Your task to perform on an android device: Empty the shopping cart on amazon. Add "sony triple a" to the cart on amazon, then select checkout. Image 0: 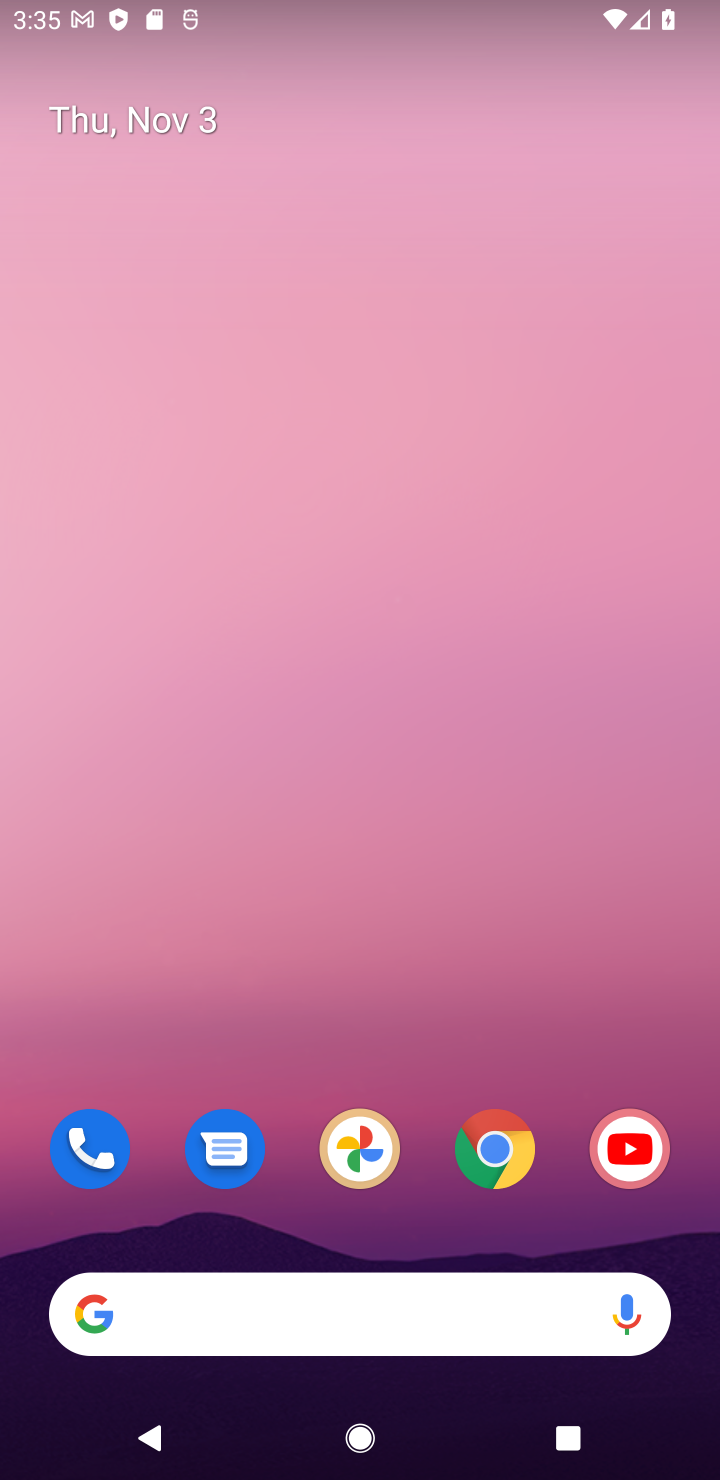
Step 0: drag from (299, 1039) to (9, 192)
Your task to perform on an android device: Empty the shopping cart on amazon. Add "sony triple a" to the cart on amazon, then select checkout. Image 1: 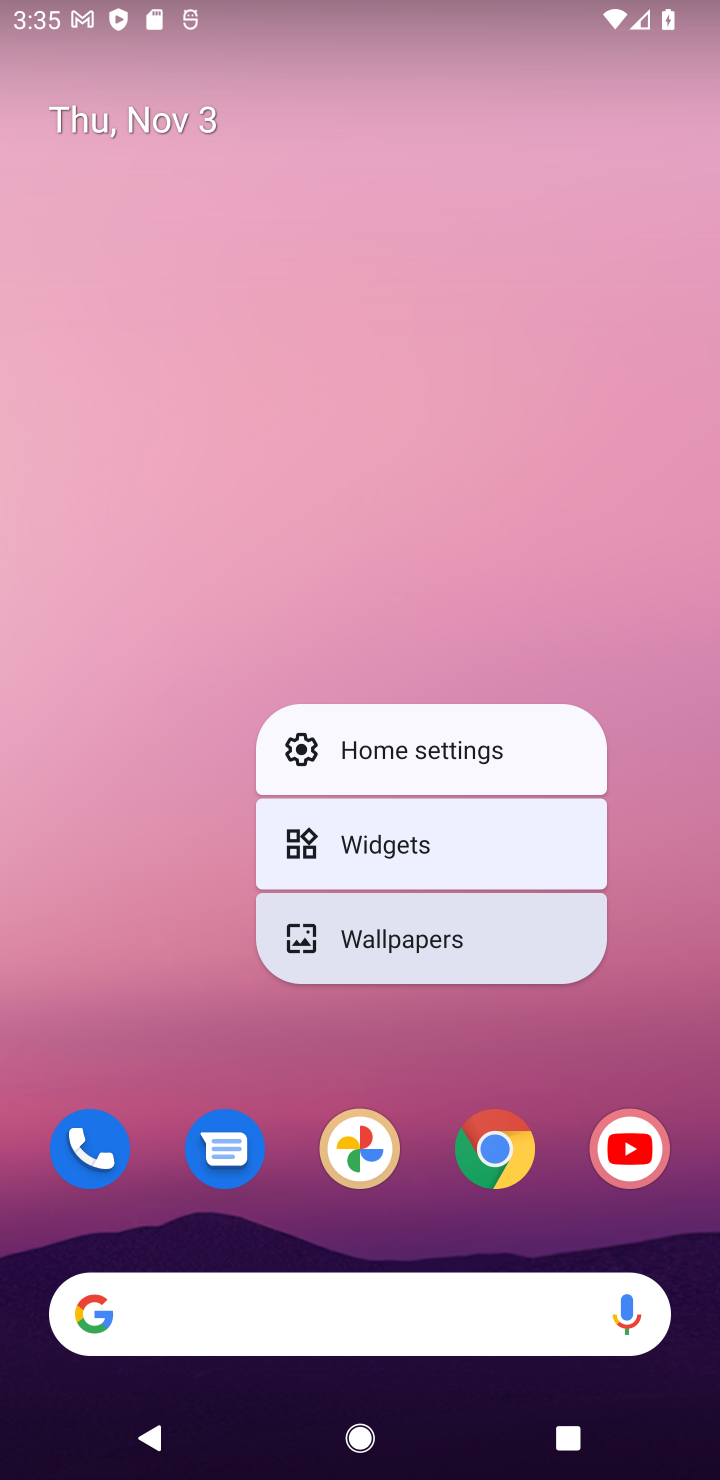
Step 1: click (109, 295)
Your task to perform on an android device: Empty the shopping cart on amazon. Add "sony triple a" to the cart on amazon, then select checkout. Image 2: 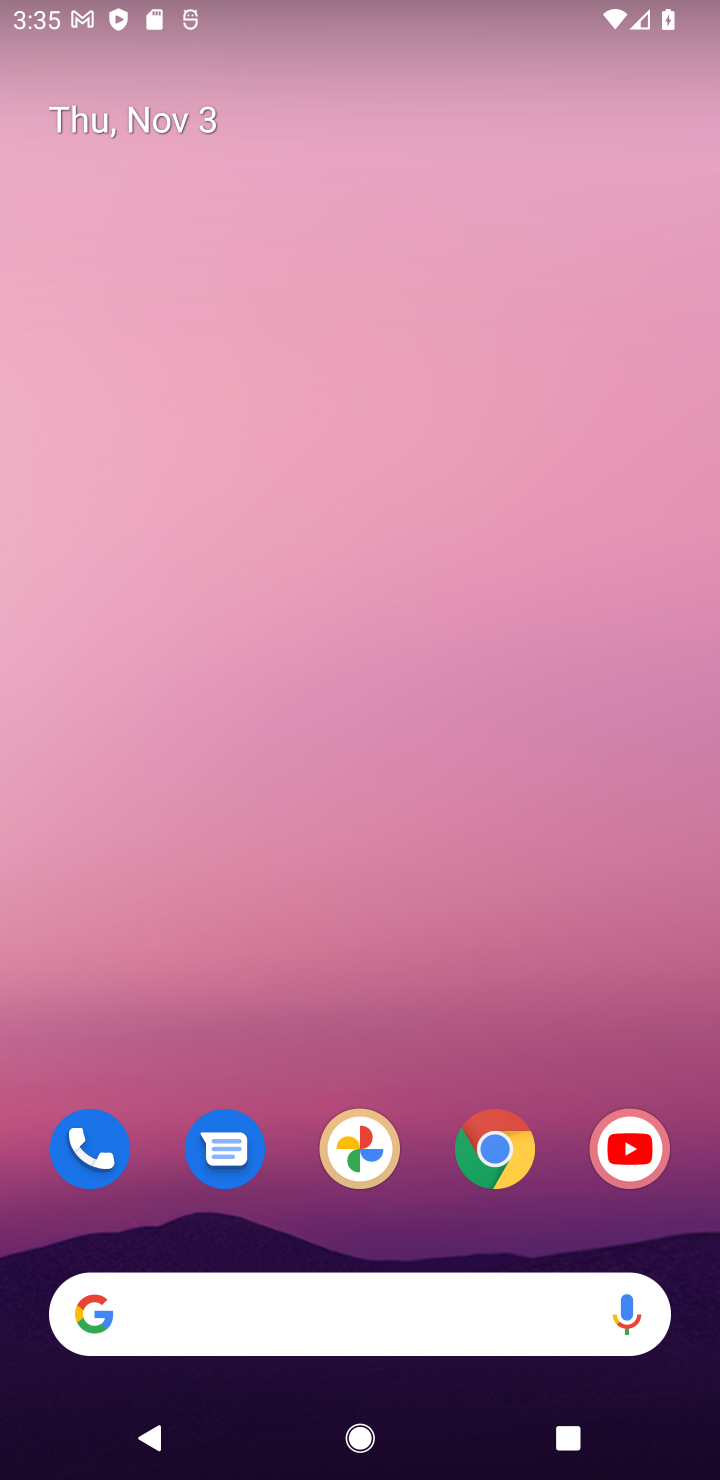
Step 2: drag from (481, 936) to (239, 140)
Your task to perform on an android device: Empty the shopping cart on amazon. Add "sony triple a" to the cart on amazon, then select checkout. Image 3: 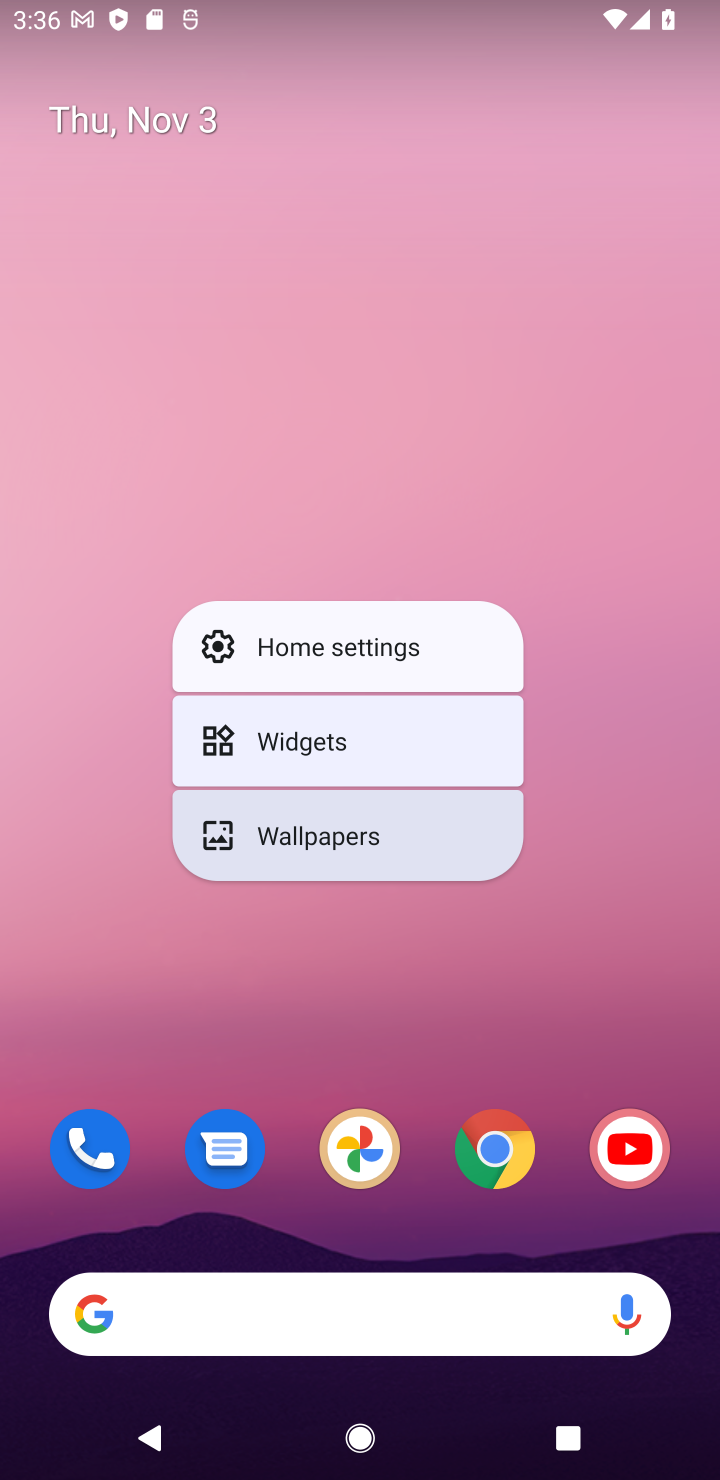
Step 3: click (577, 951)
Your task to perform on an android device: Empty the shopping cart on amazon. Add "sony triple a" to the cart on amazon, then select checkout. Image 4: 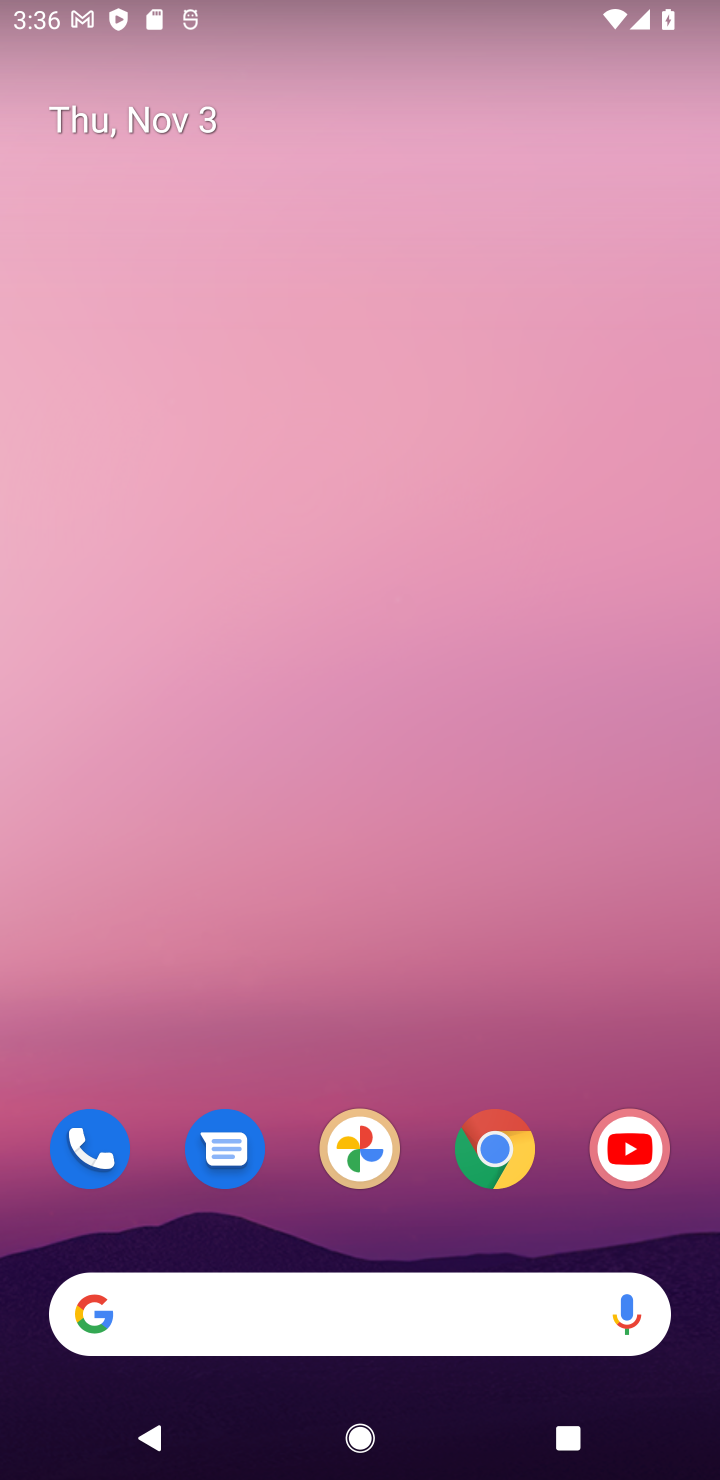
Step 4: drag from (446, 320) to (426, 147)
Your task to perform on an android device: Empty the shopping cart on amazon. Add "sony triple a" to the cart on amazon, then select checkout. Image 5: 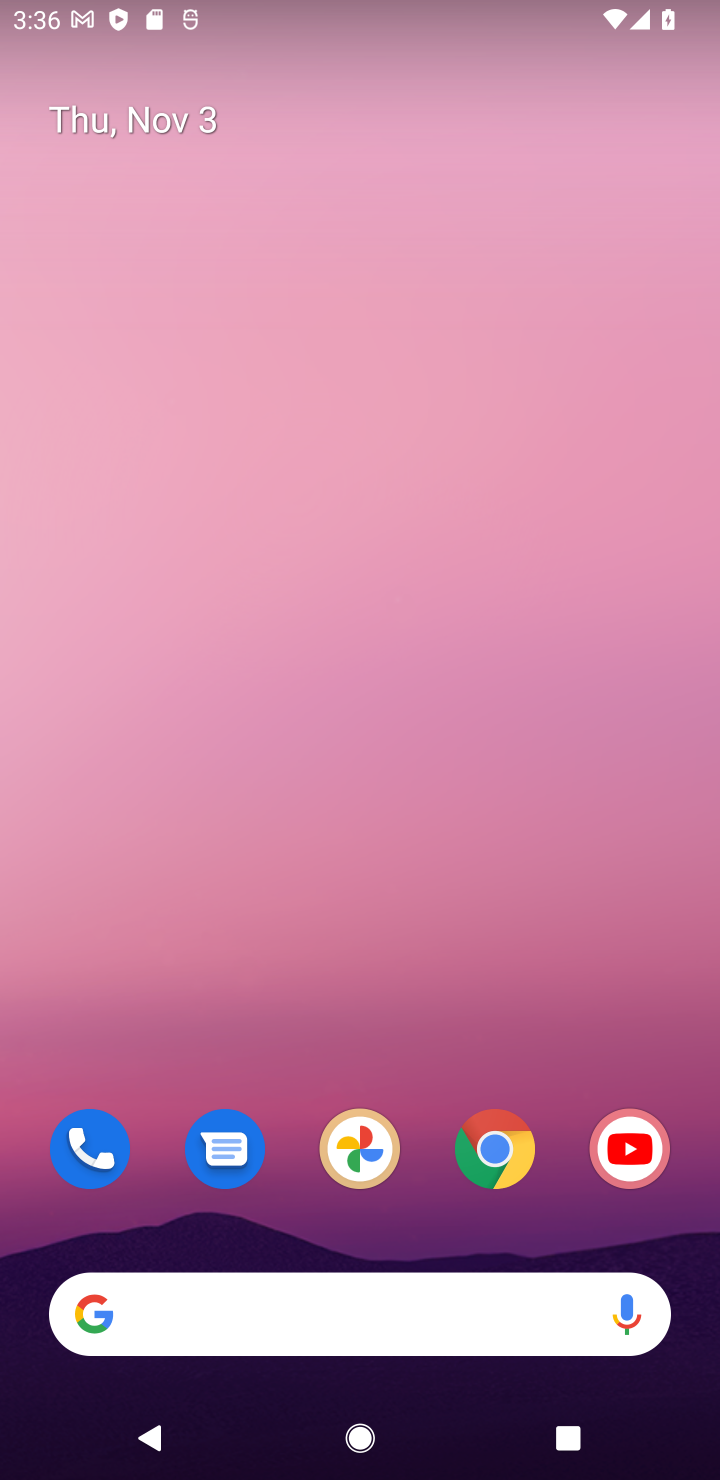
Step 5: drag from (371, 705) to (417, 211)
Your task to perform on an android device: Empty the shopping cart on amazon. Add "sony triple a" to the cart on amazon, then select checkout. Image 6: 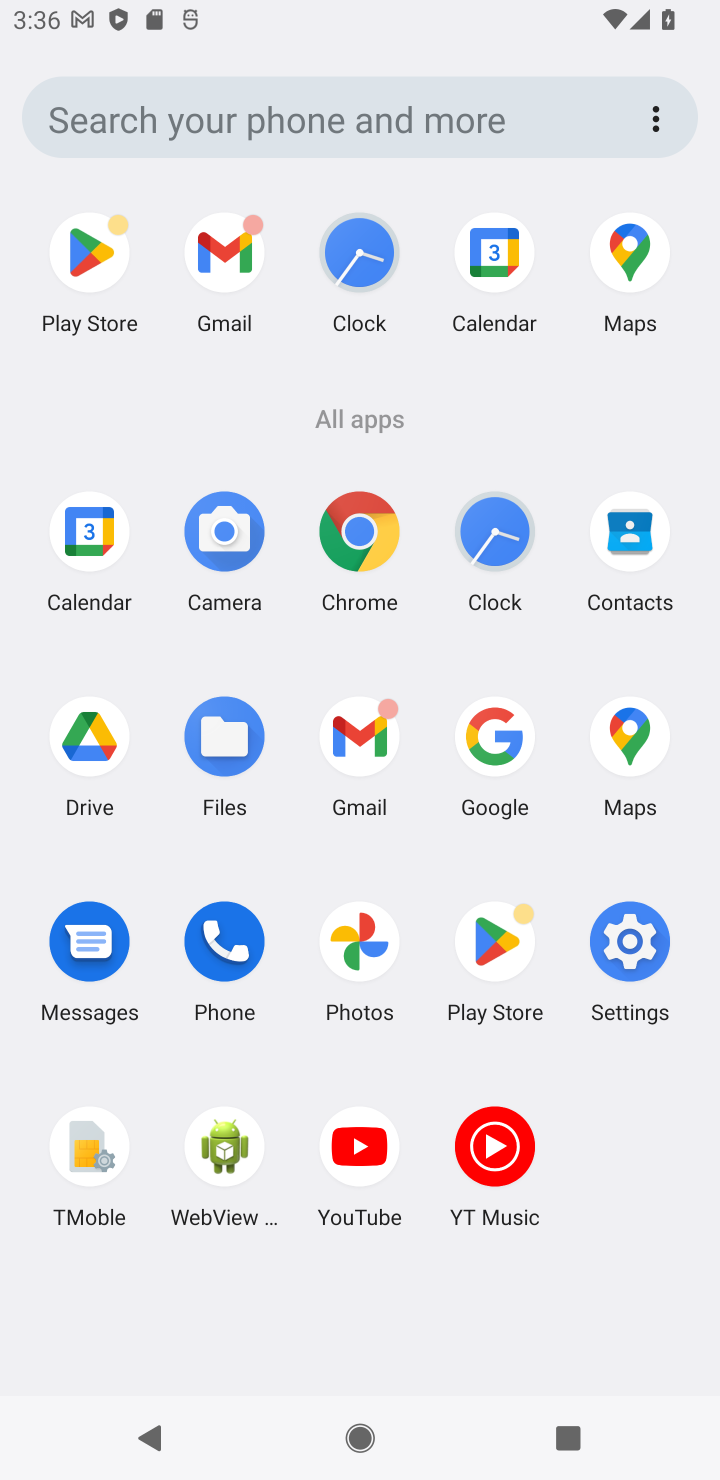
Step 6: click (349, 530)
Your task to perform on an android device: Empty the shopping cart on amazon. Add "sony triple a" to the cart on amazon, then select checkout. Image 7: 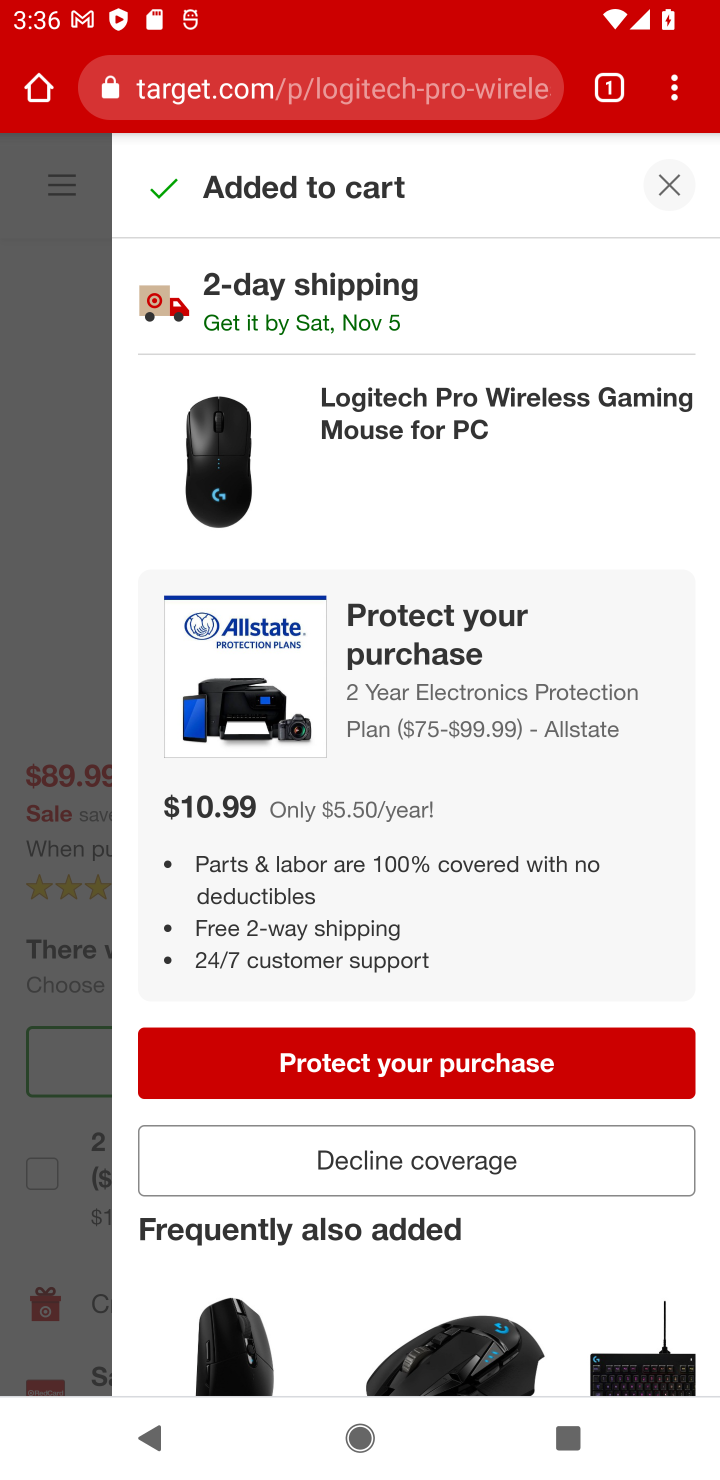
Step 7: click (664, 184)
Your task to perform on an android device: Empty the shopping cart on amazon. Add "sony triple a" to the cart on amazon, then select checkout. Image 8: 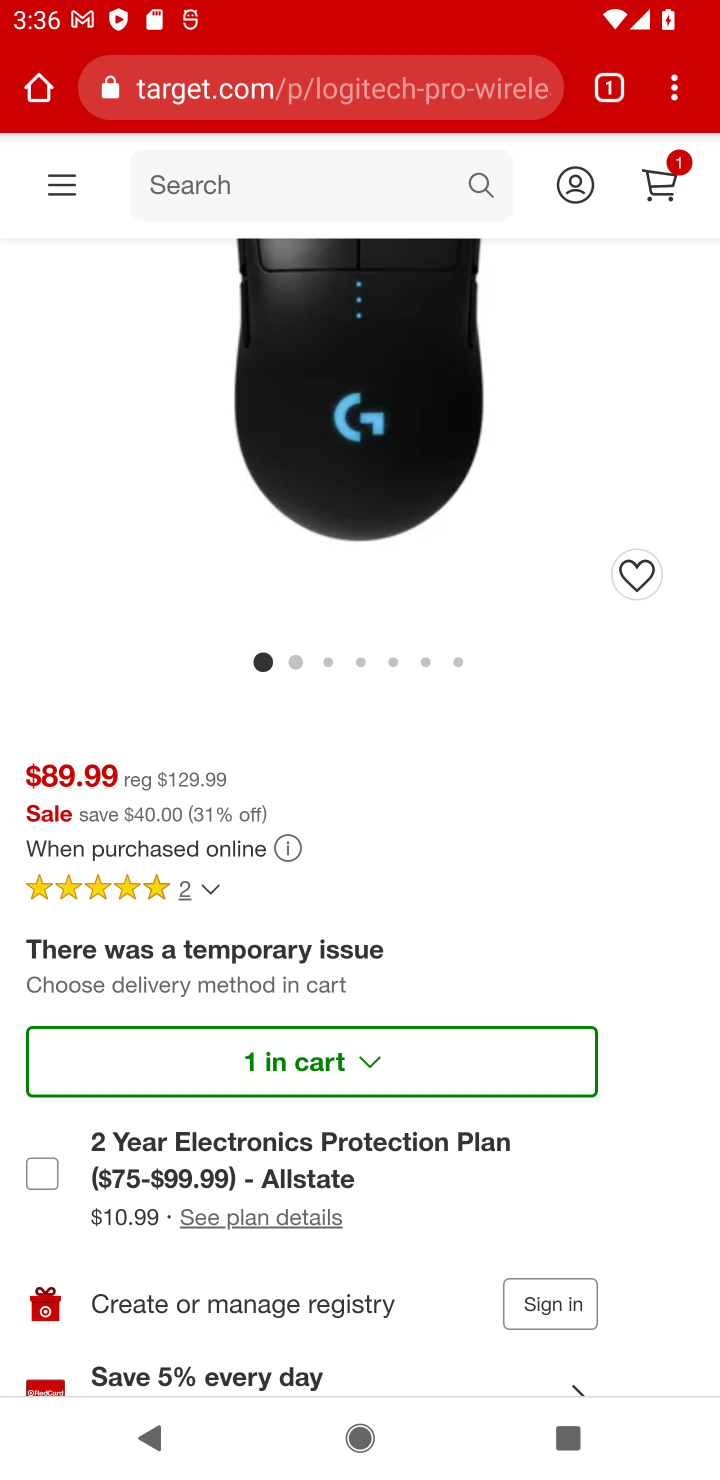
Step 8: click (245, 90)
Your task to perform on an android device: Empty the shopping cart on amazon. Add "sony triple a" to the cart on amazon, then select checkout. Image 9: 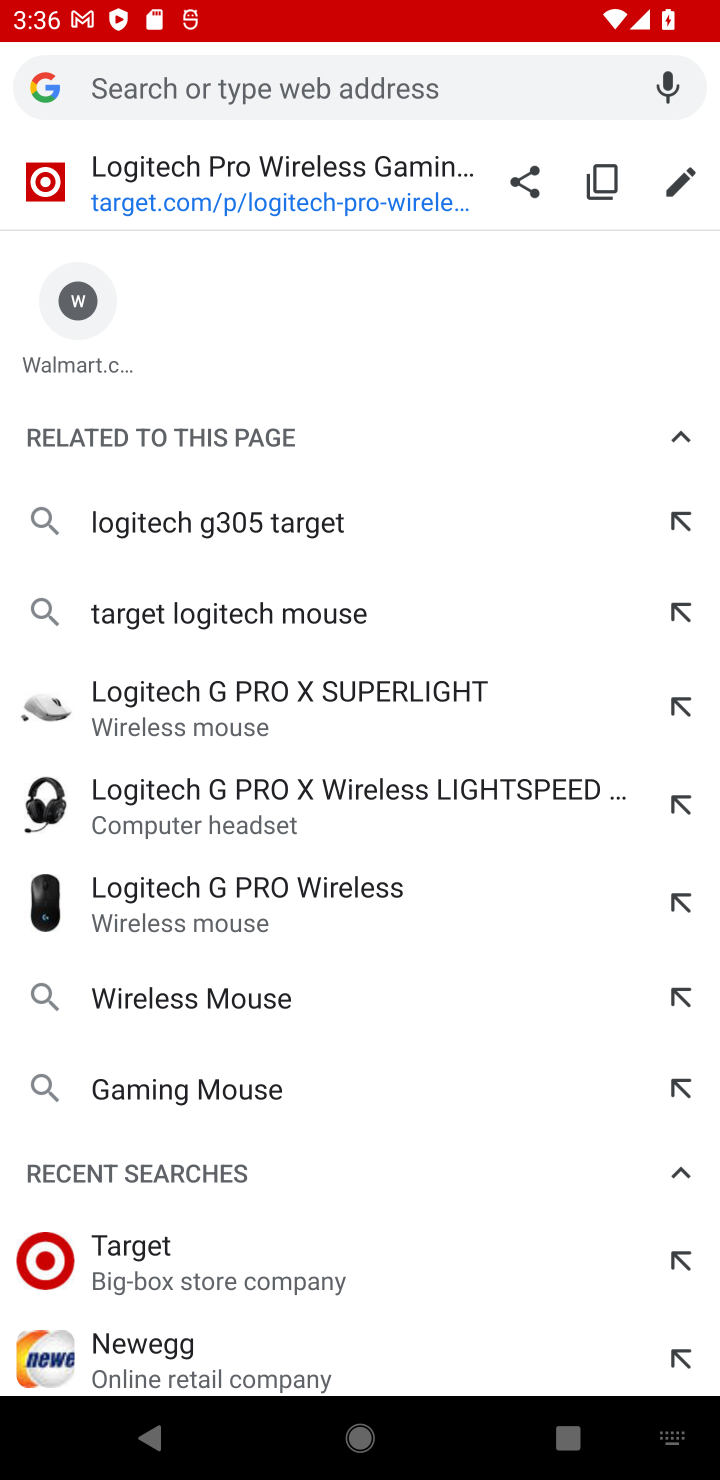
Step 9: type "amazon"
Your task to perform on an android device: Empty the shopping cart on amazon. Add "sony triple a" to the cart on amazon, then select checkout. Image 10: 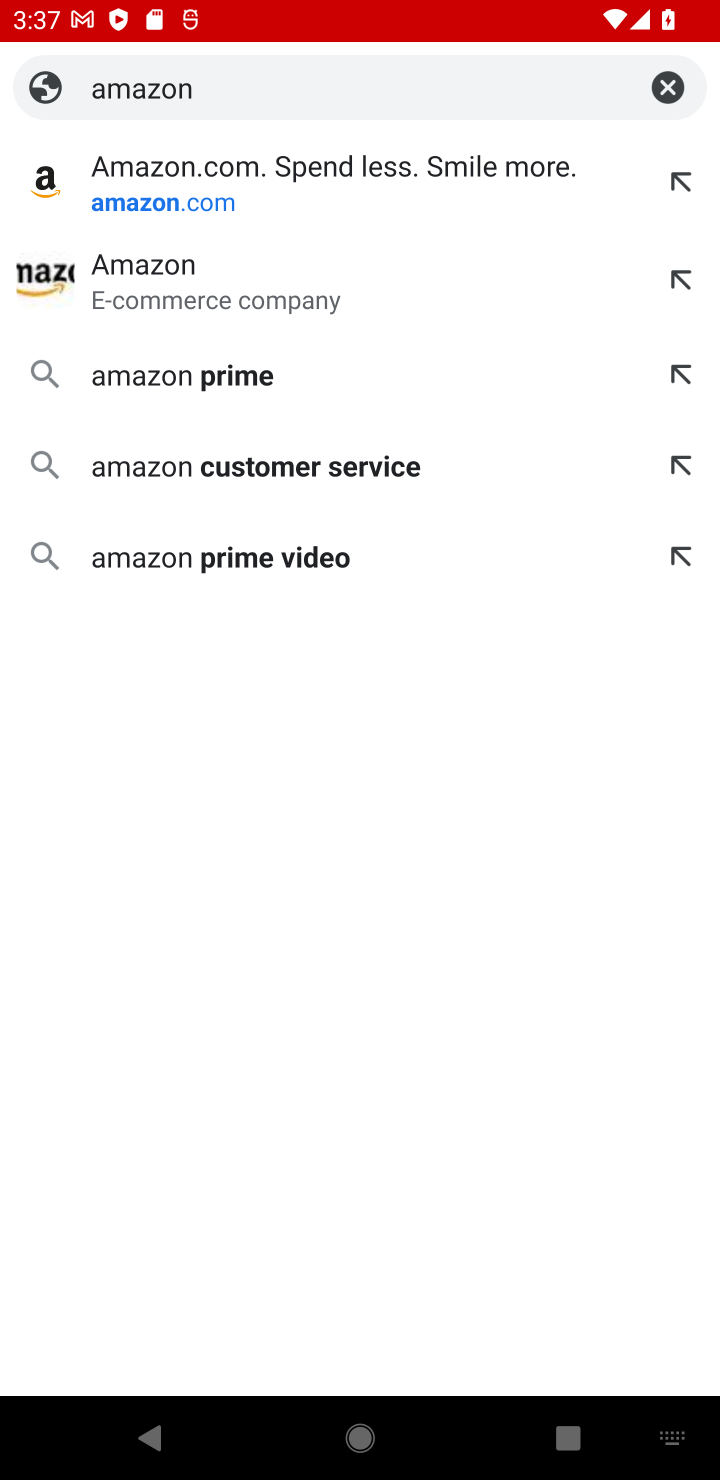
Step 10: click (254, 194)
Your task to perform on an android device: Empty the shopping cart on amazon. Add "sony triple a" to the cart on amazon, then select checkout. Image 11: 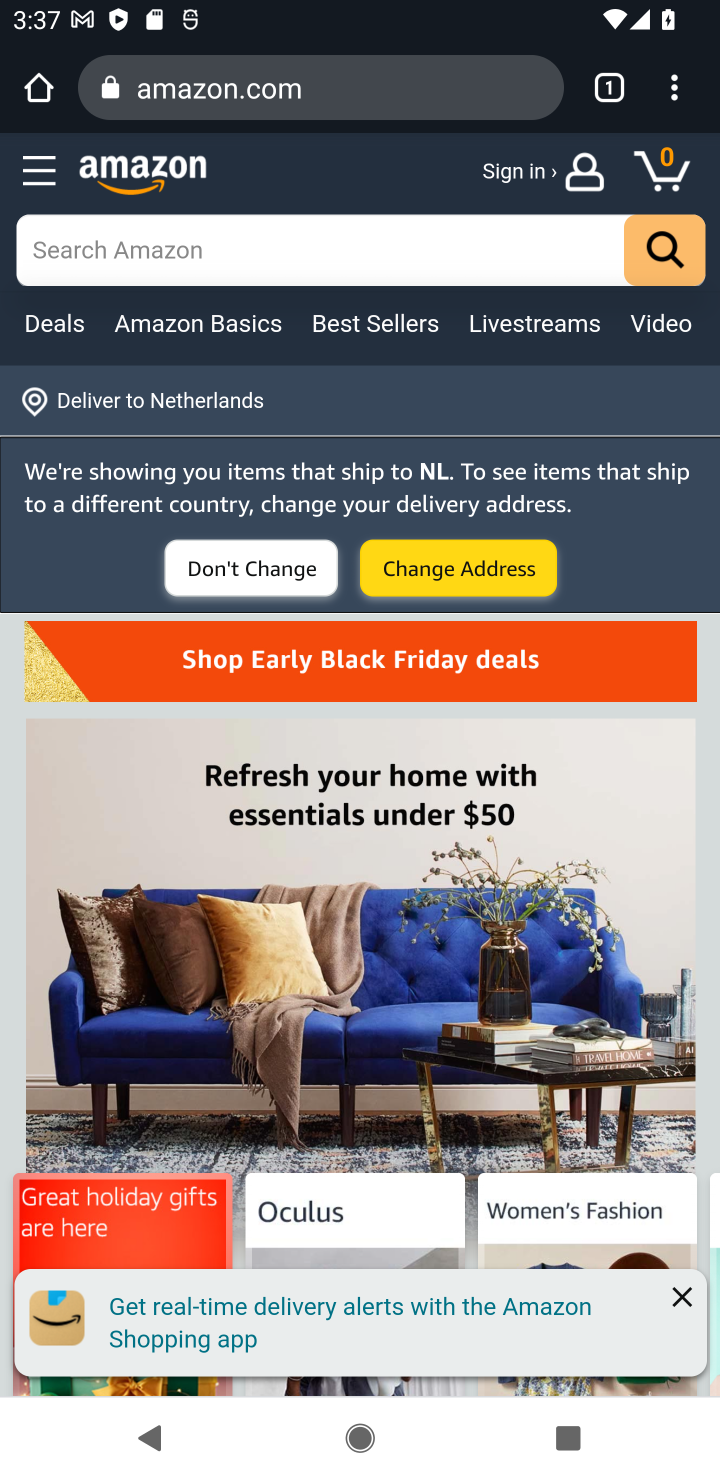
Step 11: click (304, 241)
Your task to perform on an android device: Empty the shopping cart on amazon. Add "sony triple a" to the cart on amazon, then select checkout. Image 12: 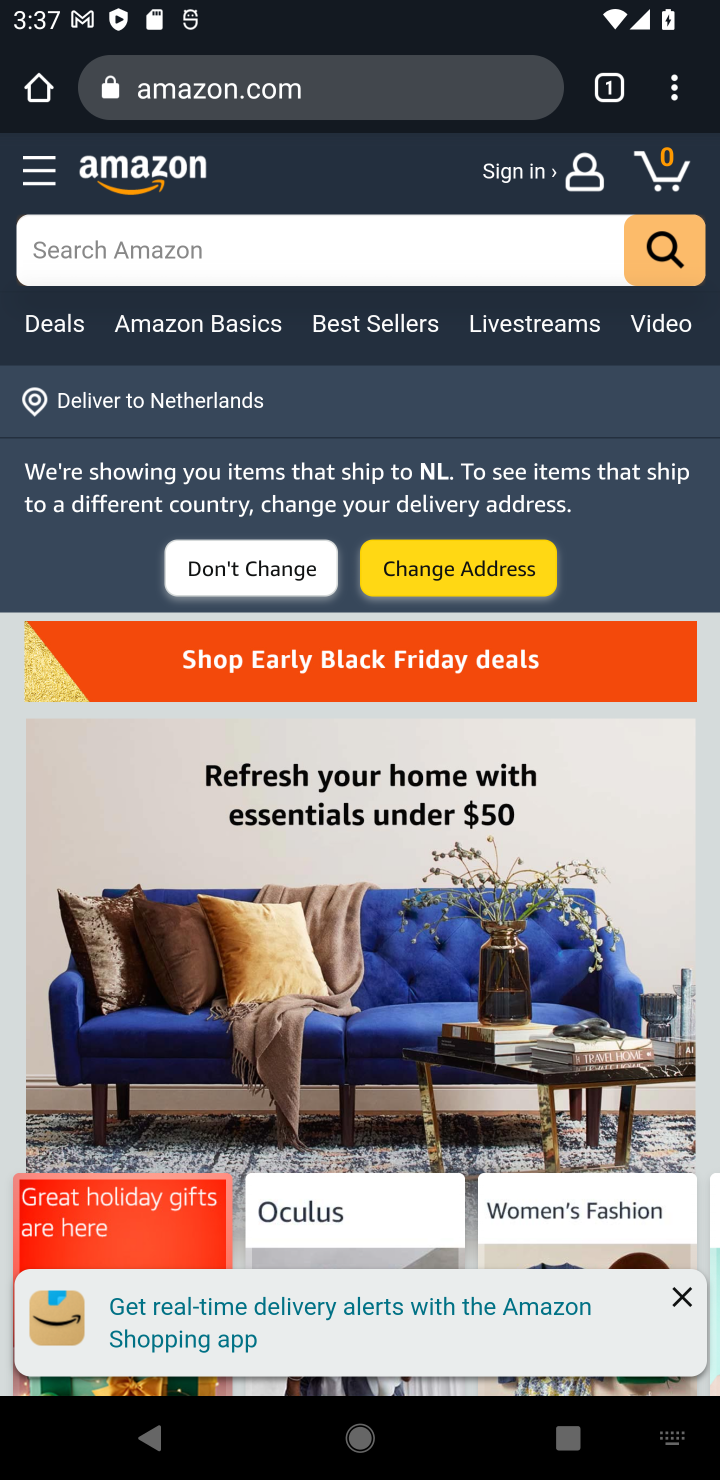
Step 12: type "sony triple a"
Your task to perform on an android device: Empty the shopping cart on amazon. Add "sony triple a" to the cart on amazon, then select checkout. Image 13: 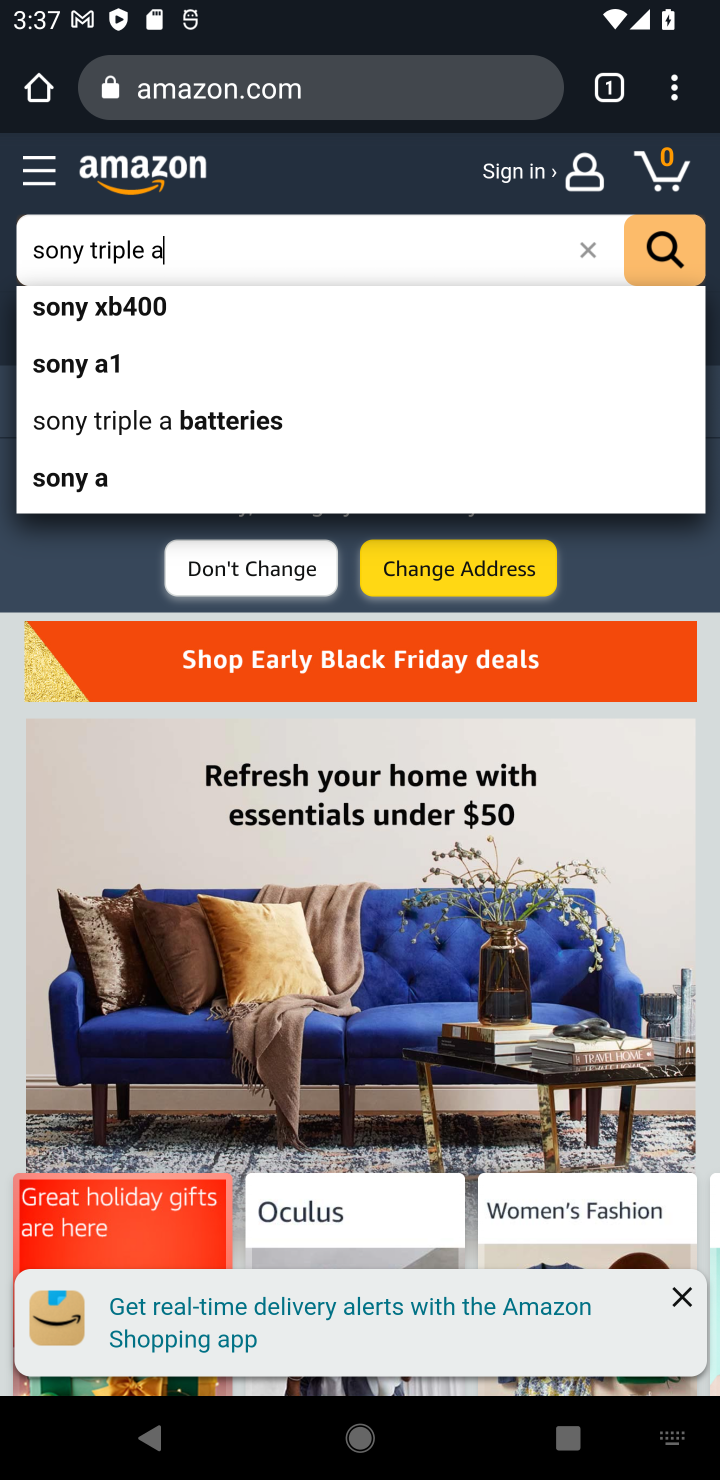
Step 13: click (674, 246)
Your task to perform on an android device: Empty the shopping cart on amazon. Add "sony triple a" to the cart on amazon, then select checkout. Image 14: 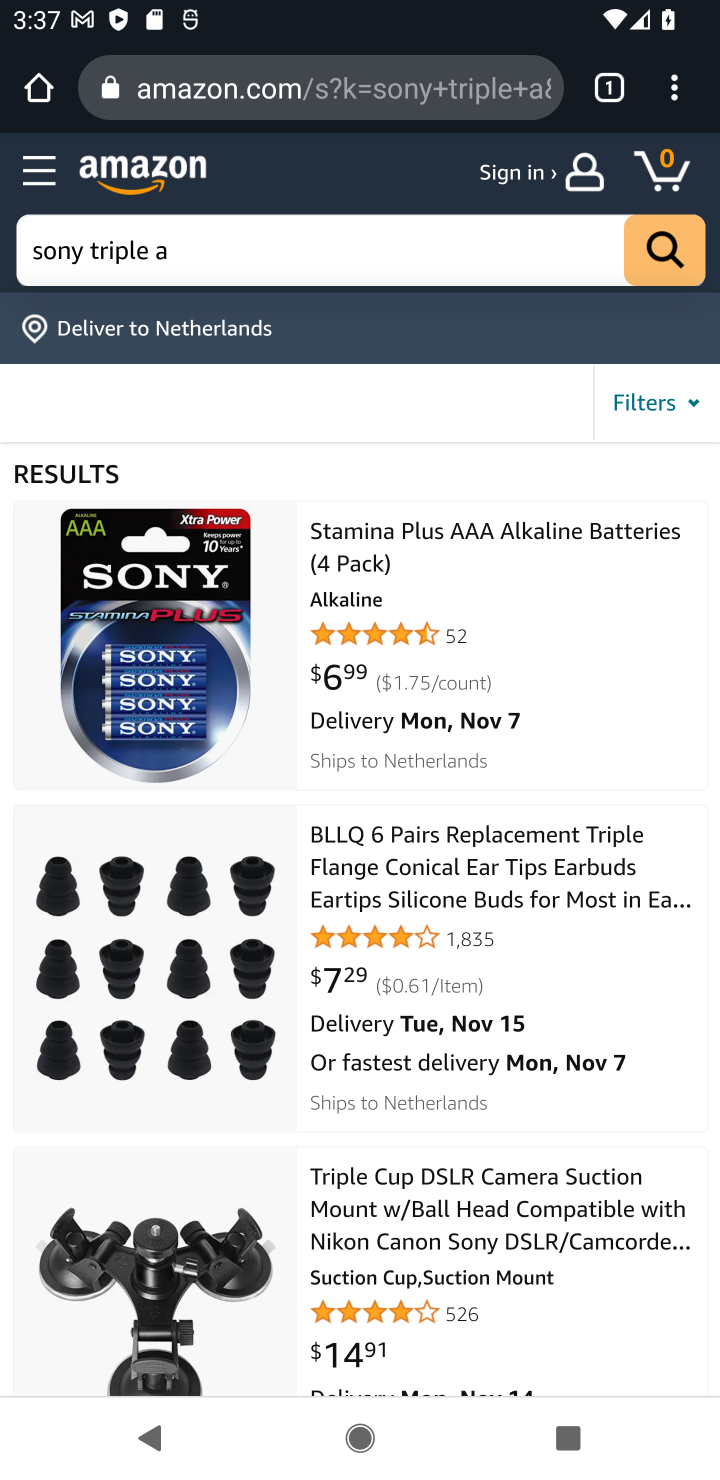
Step 14: click (386, 550)
Your task to perform on an android device: Empty the shopping cart on amazon. Add "sony triple a" to the cart on amazon, then select checkout. Image 15: 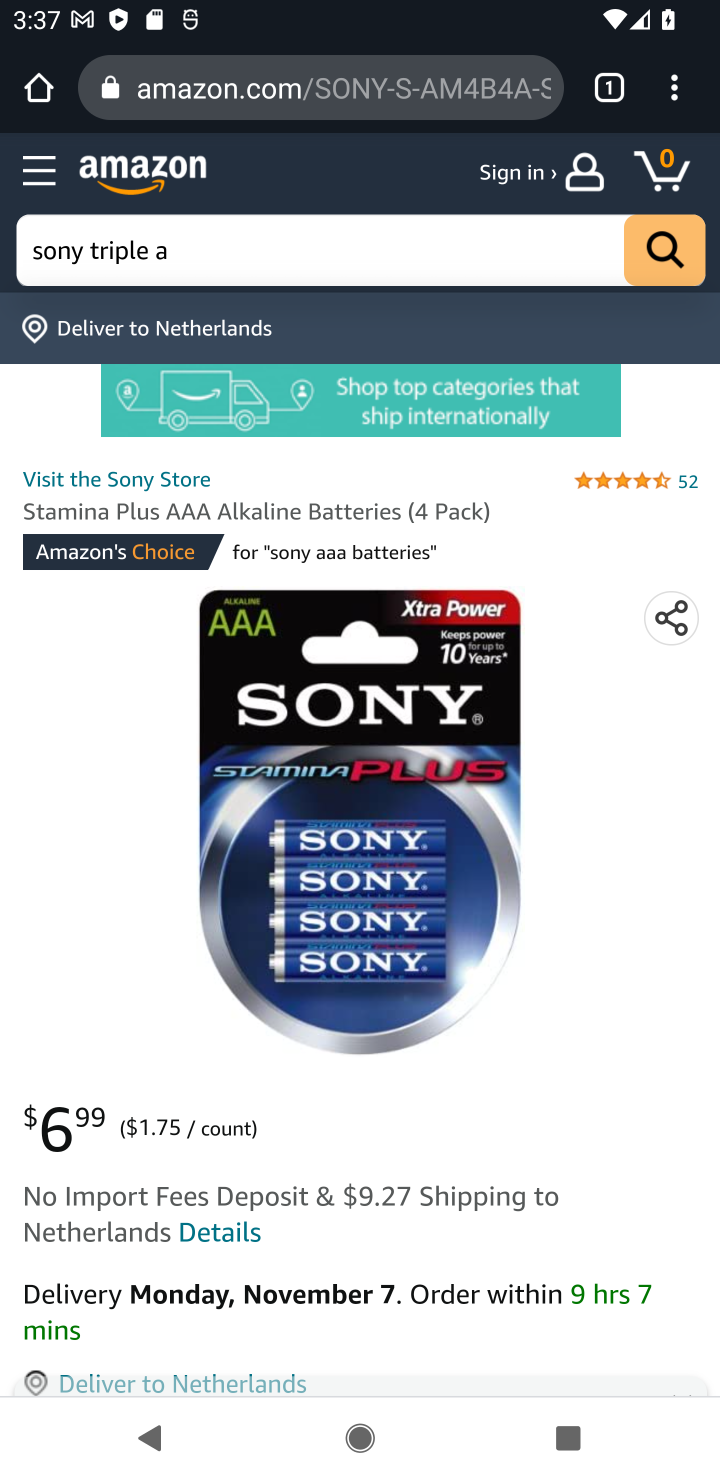
Step 15: drag from (429, 1134) to (376, 466)
Your task to perform on an android device: Empty the shopping cart on amazon. Add "sony triple a" to the cart on amazon, then select checkout. Image 16: 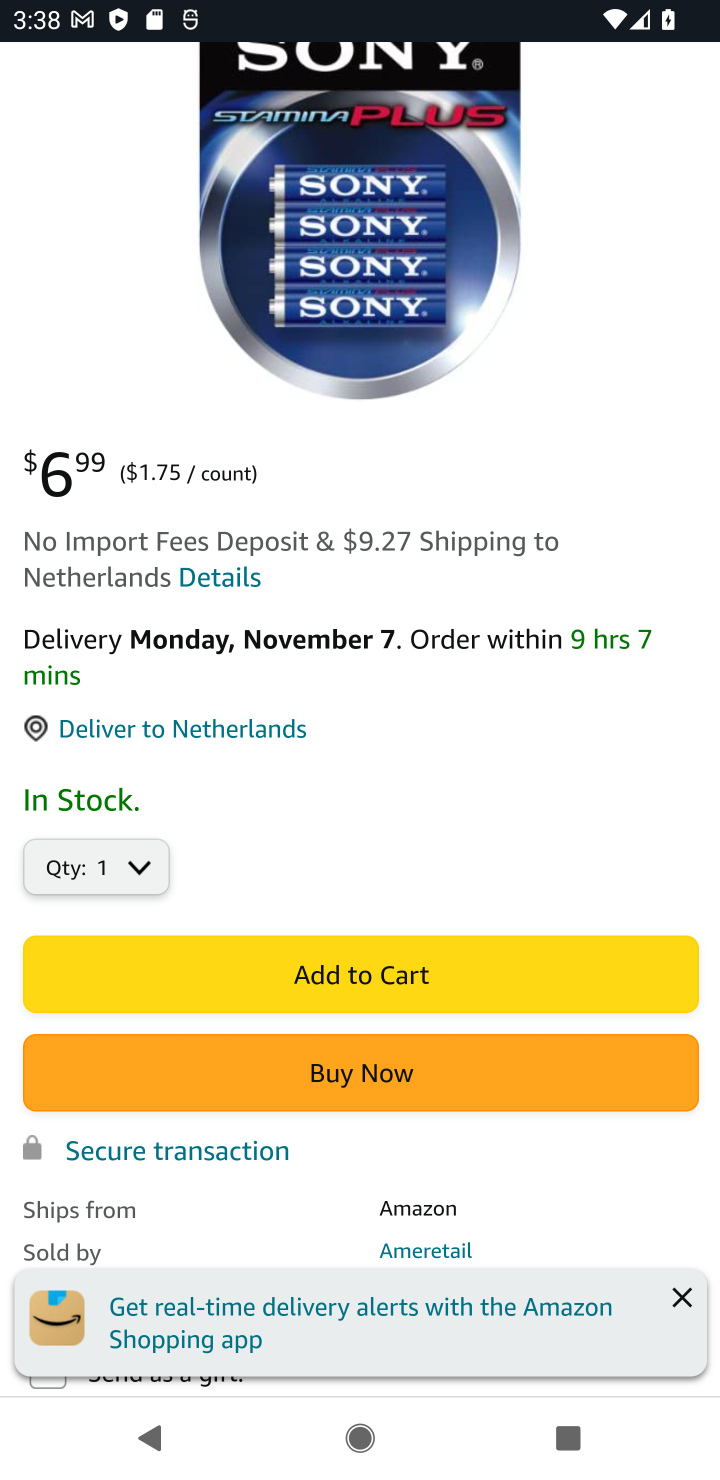
Step 16: click (399, 969)
Your task to perform on an android device: Empty the shopping cart on amazon. Add "sony triple a" to the cart on amazon, then select checkout. Image 17: 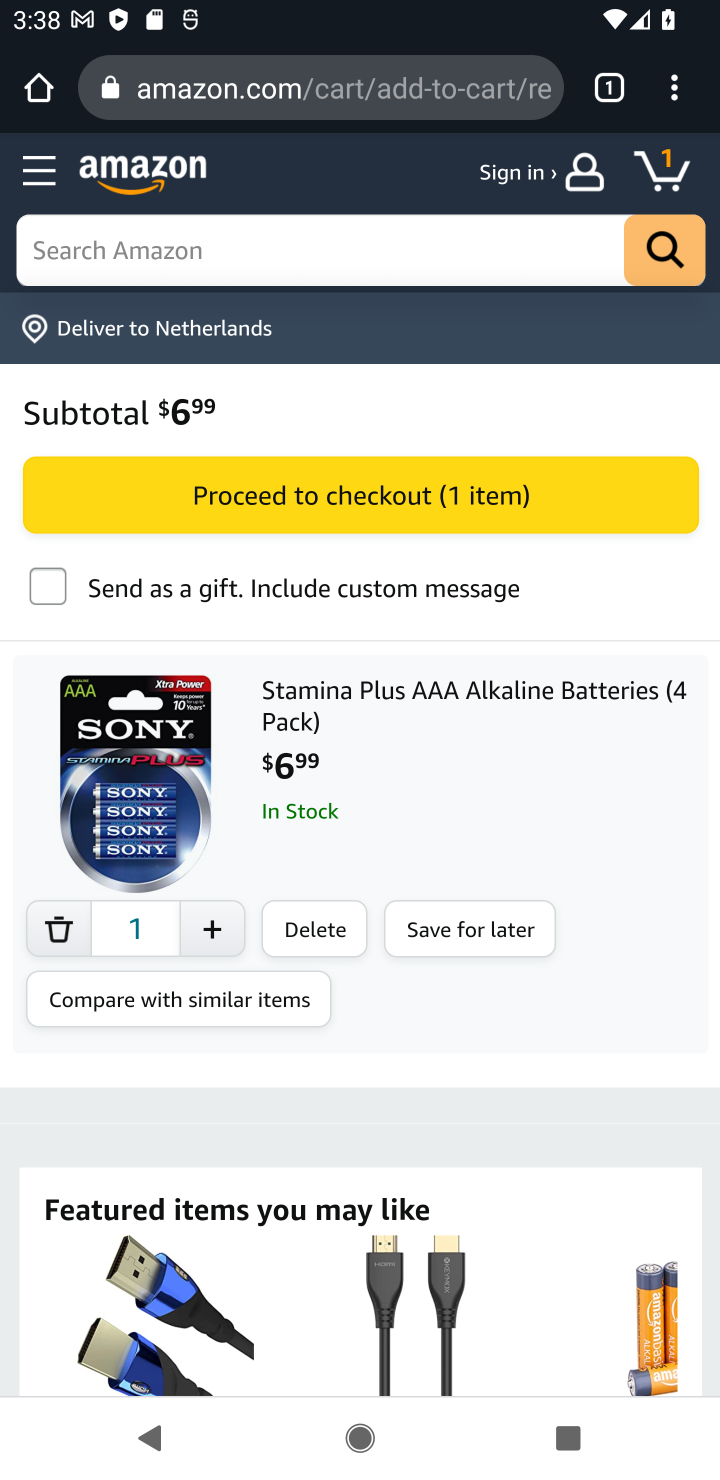
Step 17: click (387, 501)
Your task to perform on an android device: Empty the shopping cart on amazon. Add "sony triple a" to the cart on amazon, then select checkout. Image 18: 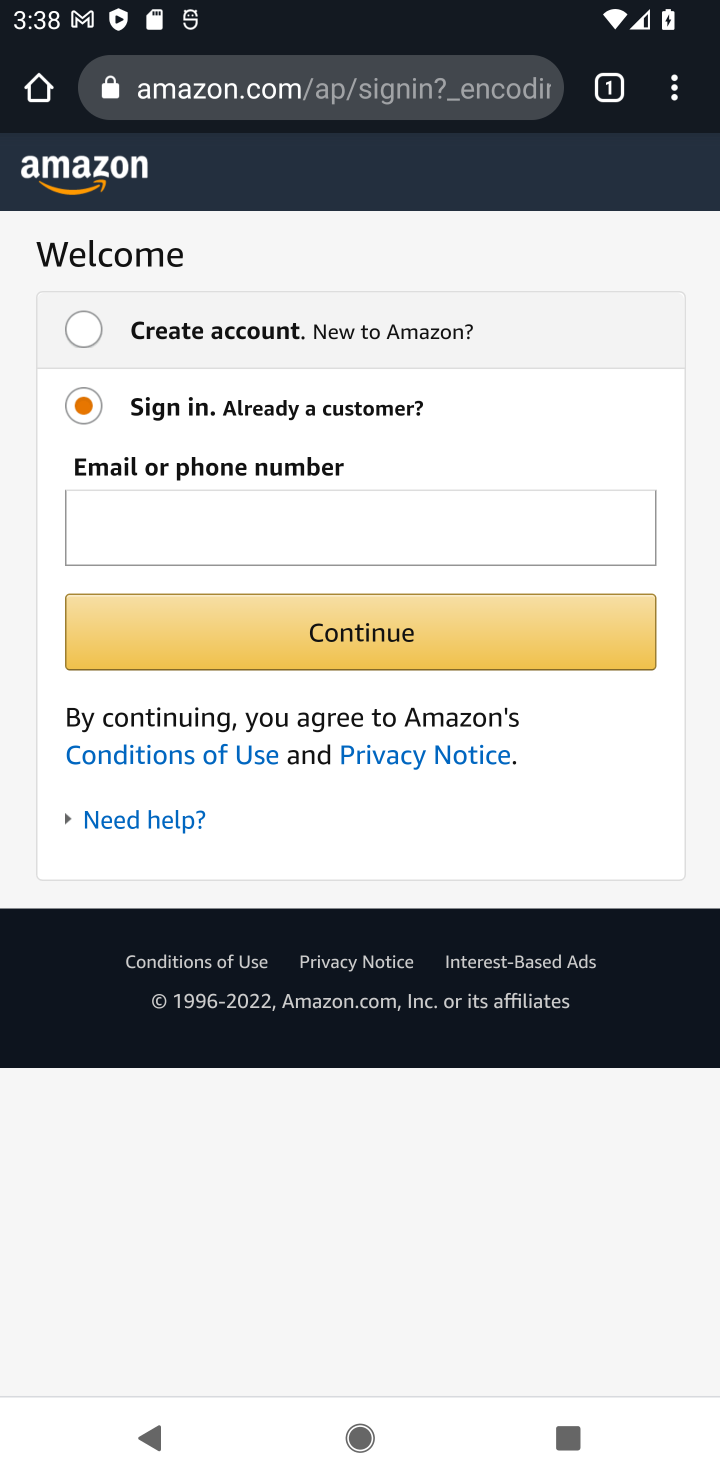
Step 18: task complete